Your task to perform on an android device: change timer sound Image 0: 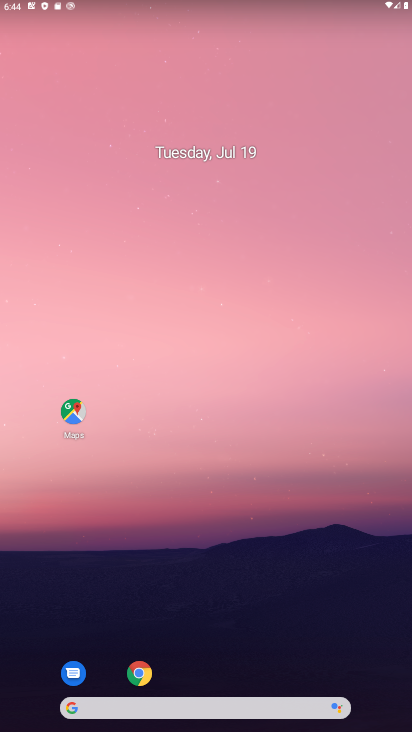
Step 0: drag from (330, 676) to (223, 47)
Your task to perform on an android device: change timer sound Image 1: 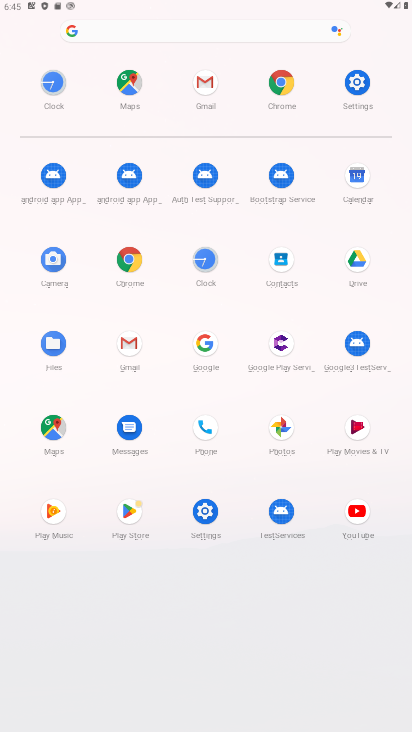
Step 1: click (204, 271)
Your task to perform on an android device: change timer sound Image 2: 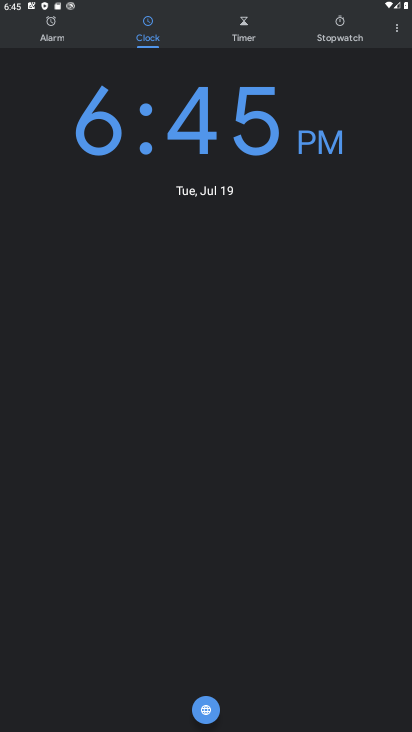
Step 2: click (399, 30)
Your task to perform on an android device: change timer sound Image 3: 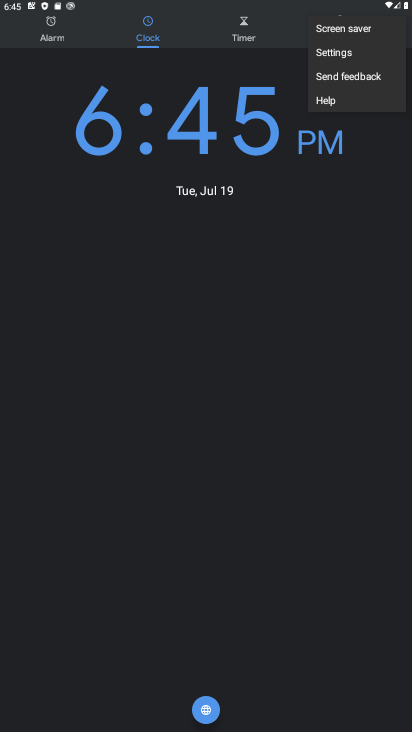
Step 3: click (350, 59)
Your task to perform on an android device: change timer sound Image 4: 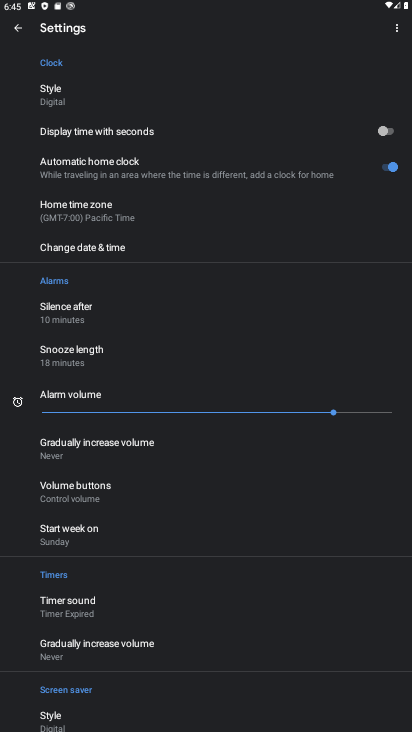
Step 4: click (86, 606)
Your task to perform on an android device: change timer sound Image 5: 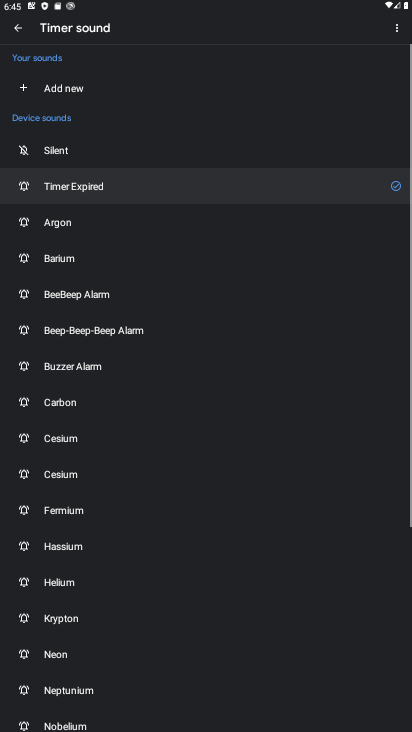
Step 5: click (85, 338)
Your task to perform on an android device: change timer sound Image 6: 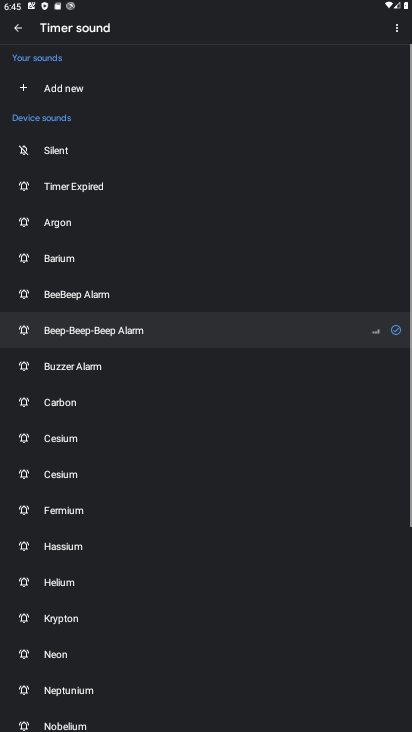
Step 6: task complete